Your task to perform on an android device: set default search engine in the chrome app Image 0: 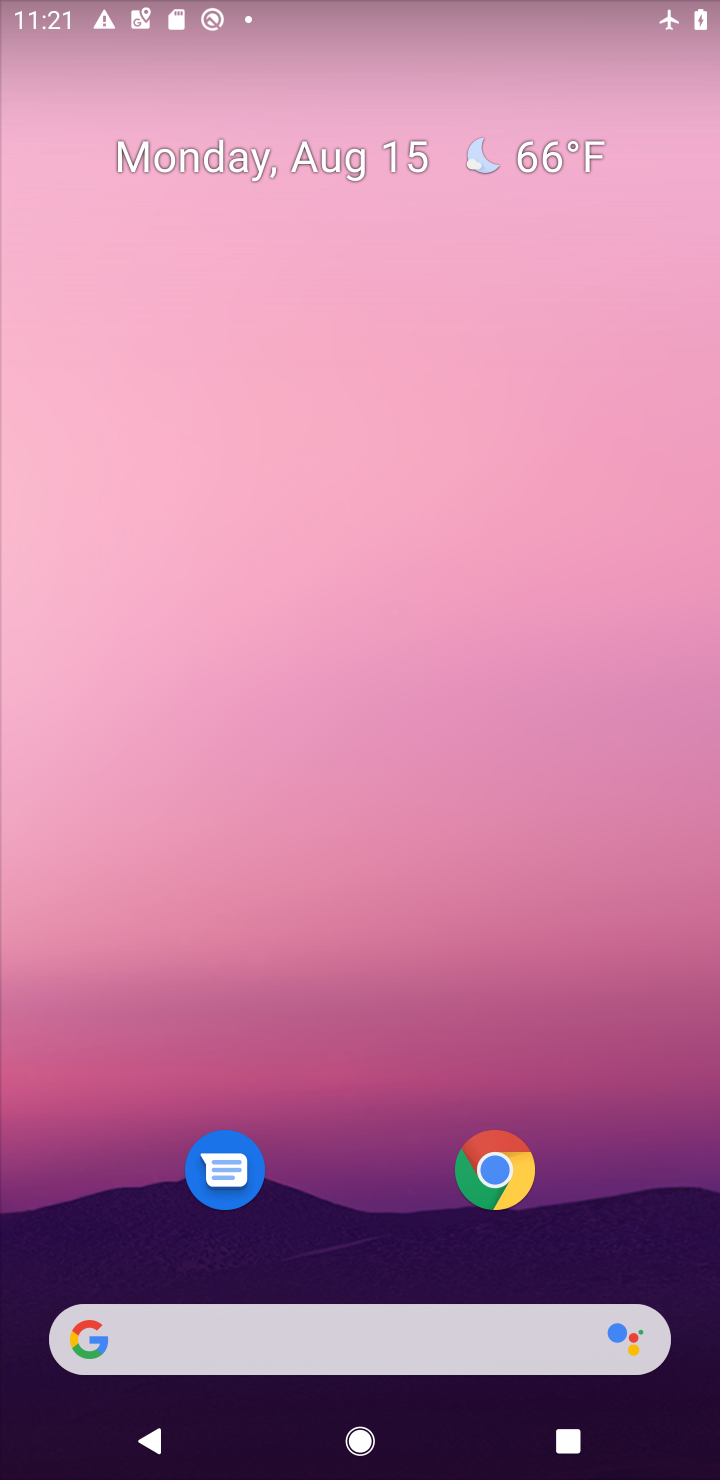
Step 0: click (489, 1160)
Your task to perform on an android device: set default search engine in the chrome app Image 1: 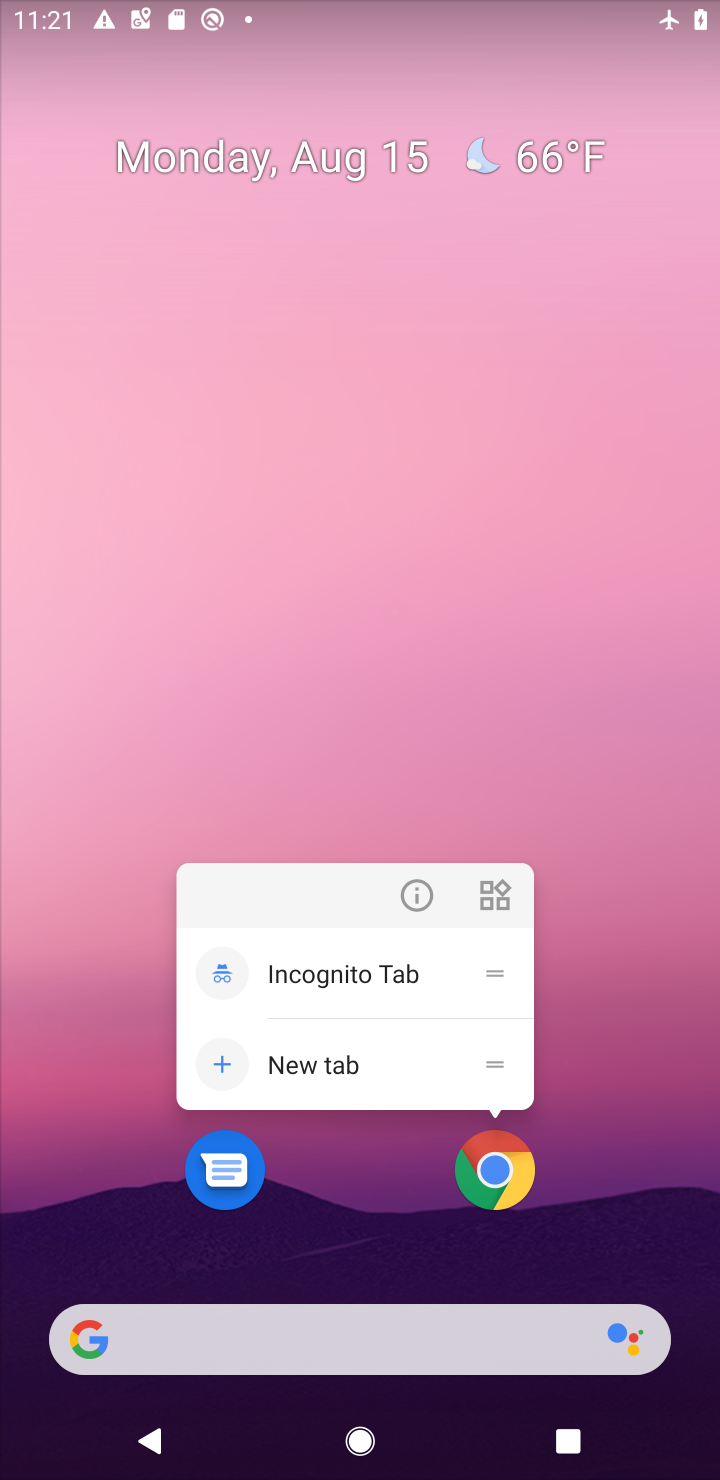
Step 1: click (489, 1160)
Your task to perform on an android device: set default search engine in the chrome app Image 2: 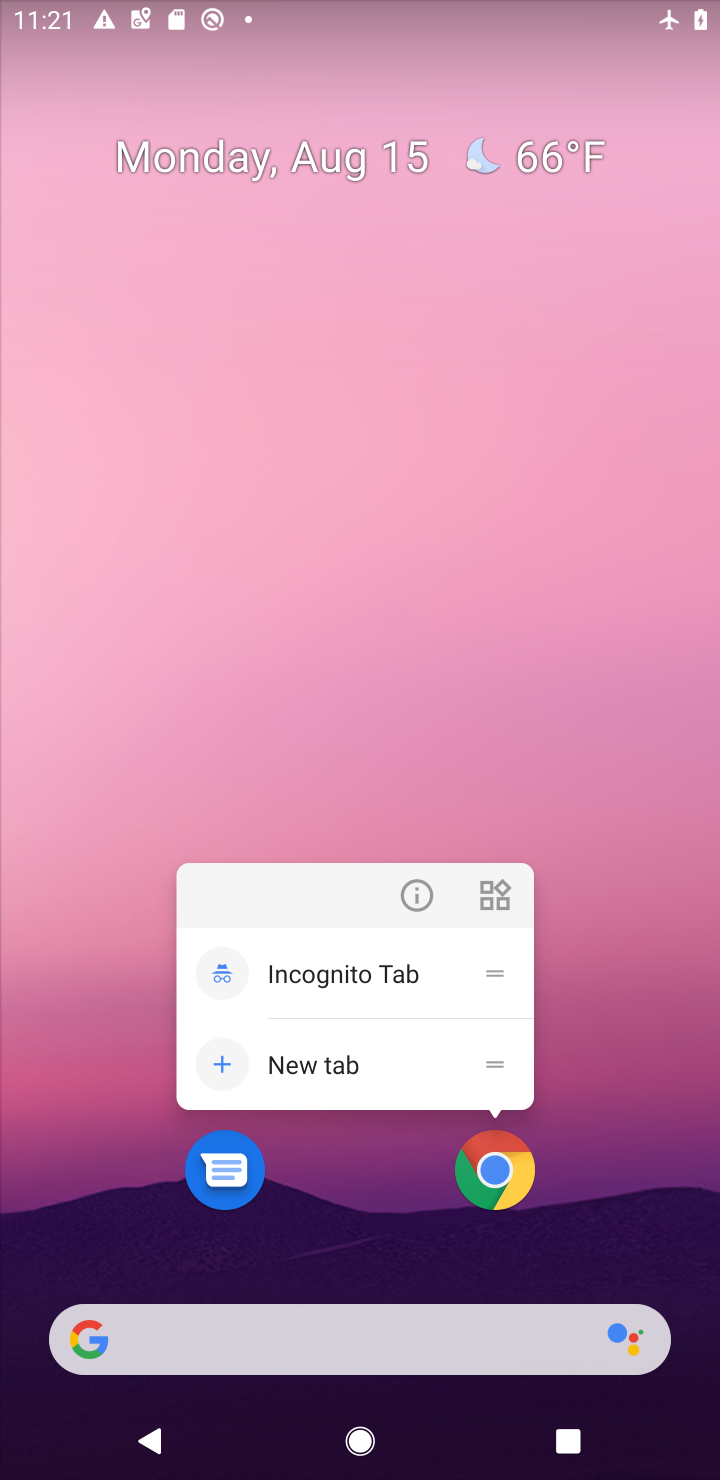
Step 2: click (570, 1249)
Your task to perform on an android device: set default search engine in the chrome app Image 3: 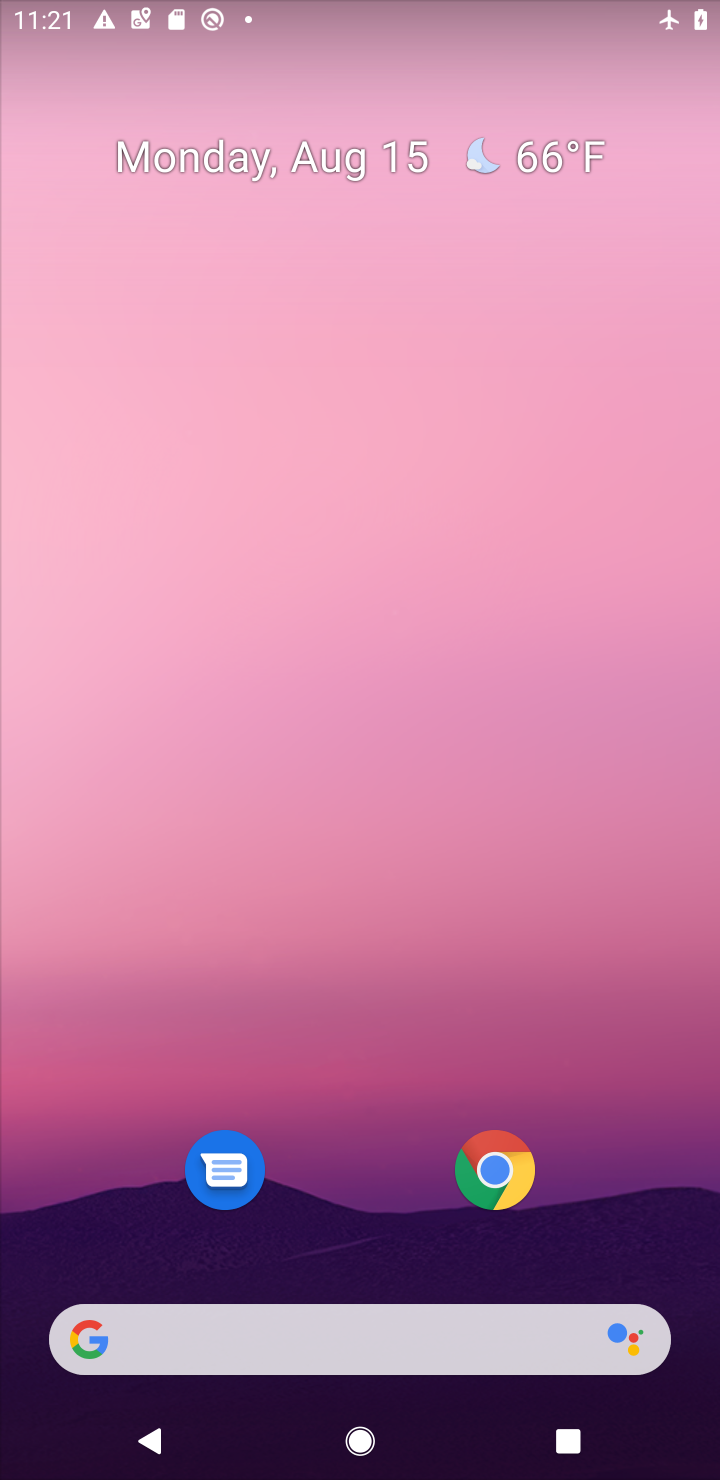
Step 3: drag from (550, 1284) to (551, 10)
Your task to perform on an android device: set default search engine in the chrome app Image 4: 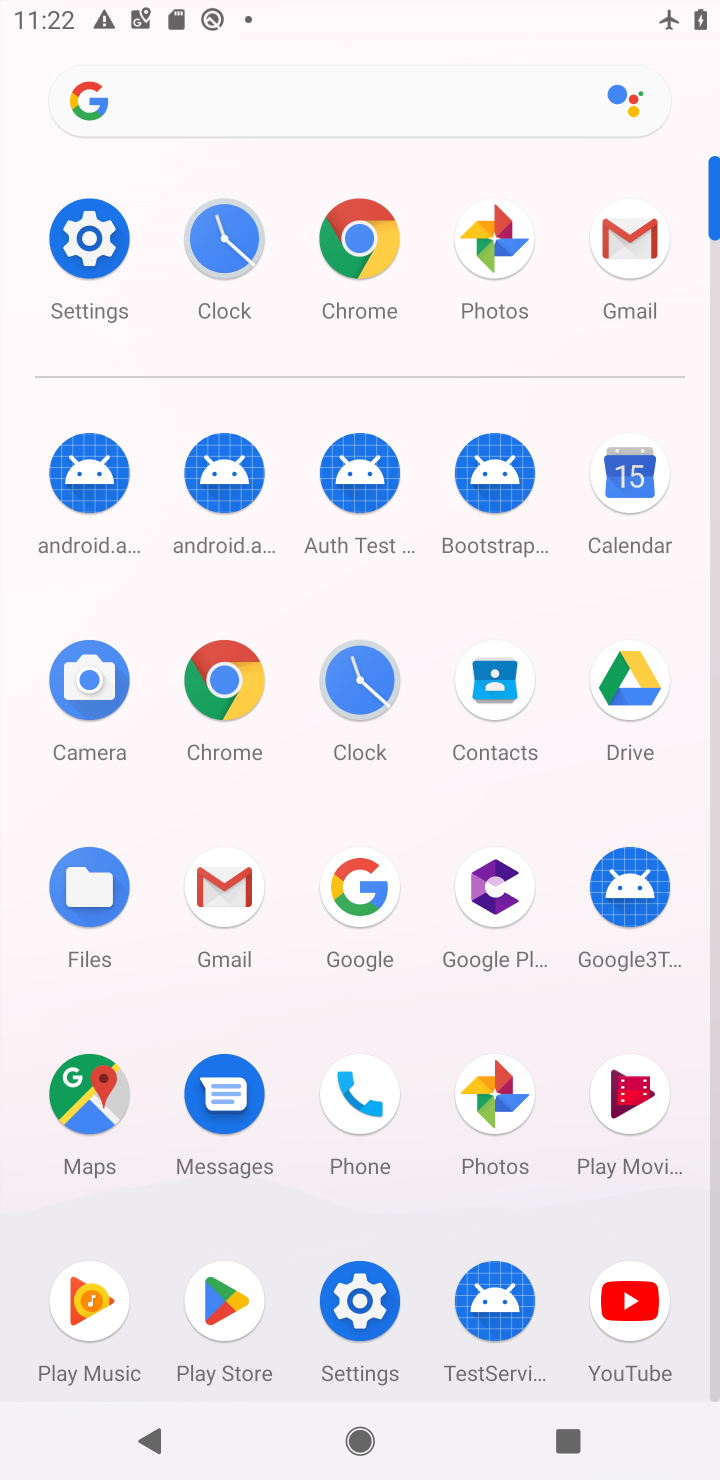
Step 4: click (351, 225)
Your task to perform on an android device: set default search engine in the chrome app Image 5: 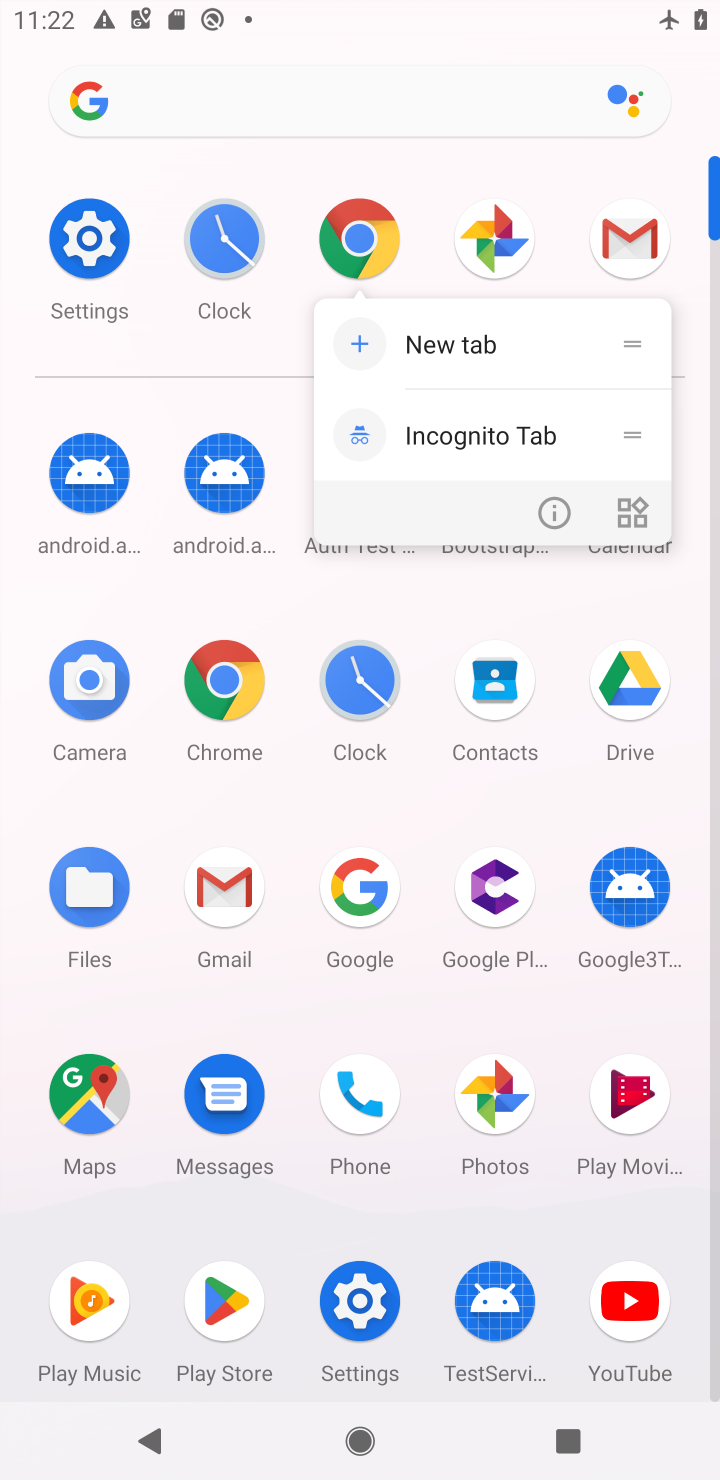
Step 5: click (355, 225)
Your task to perform on an android device: set default search engine in the chrome app Image 6: 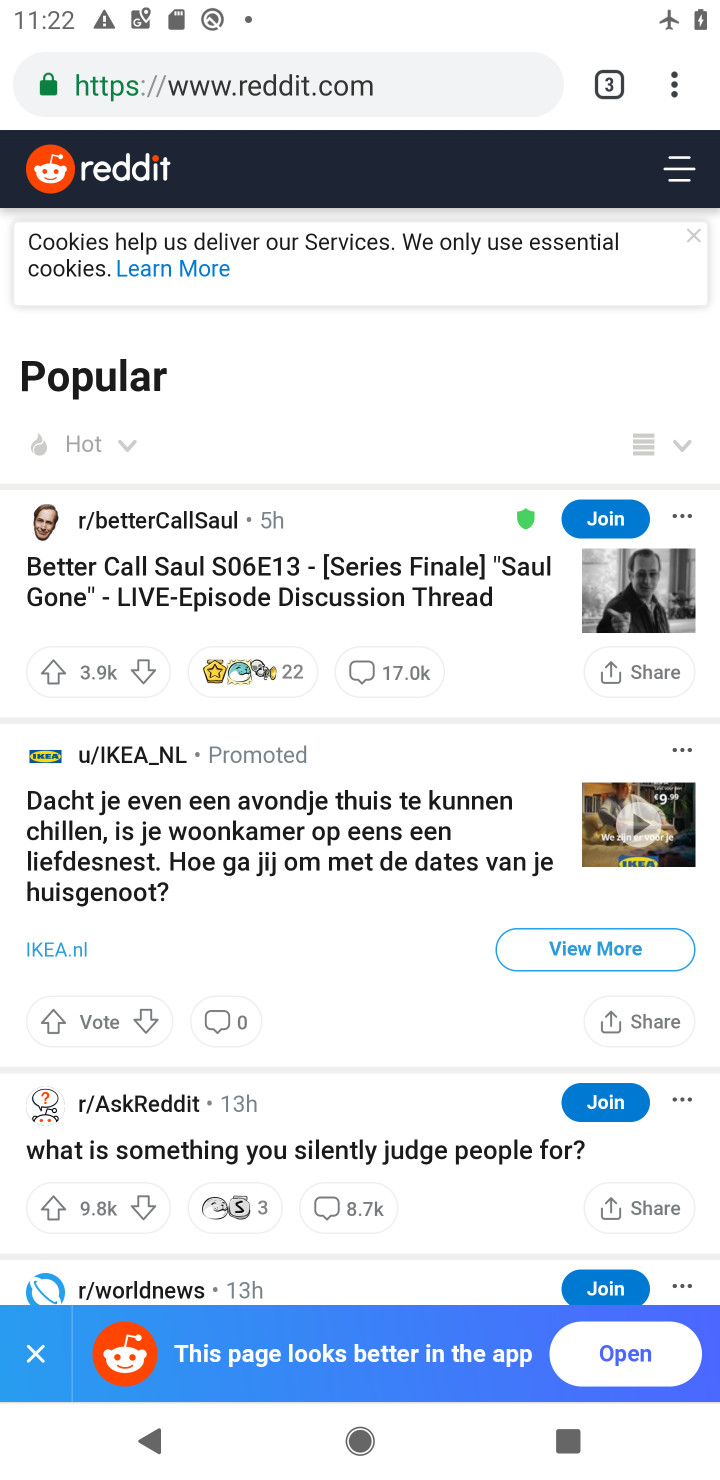
Step 6: click (676, 80)
Your task to perform on an android device: set default search engine in the chrome app Image 7: 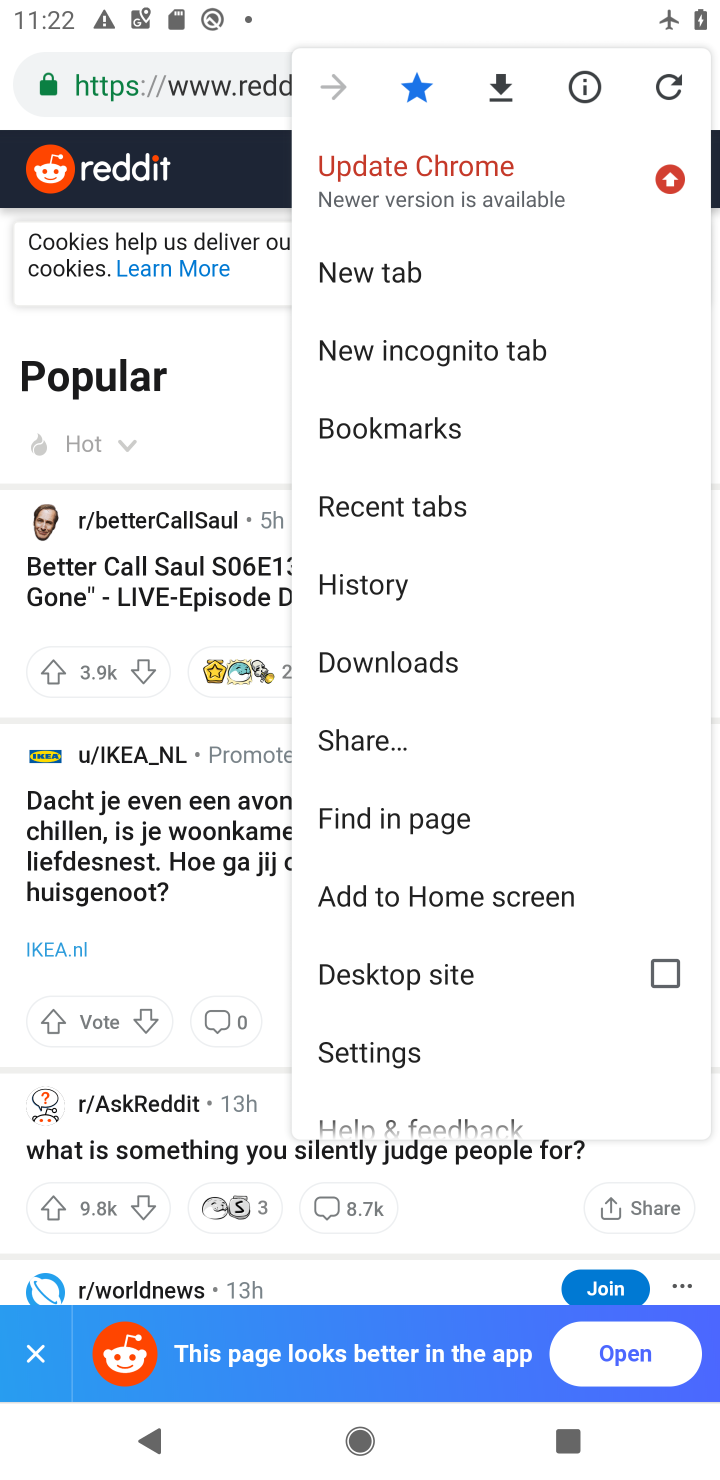
Step 7: click (424, 1049)
Your task to perform on an android device: set default search engine in the chrome app Image 8: 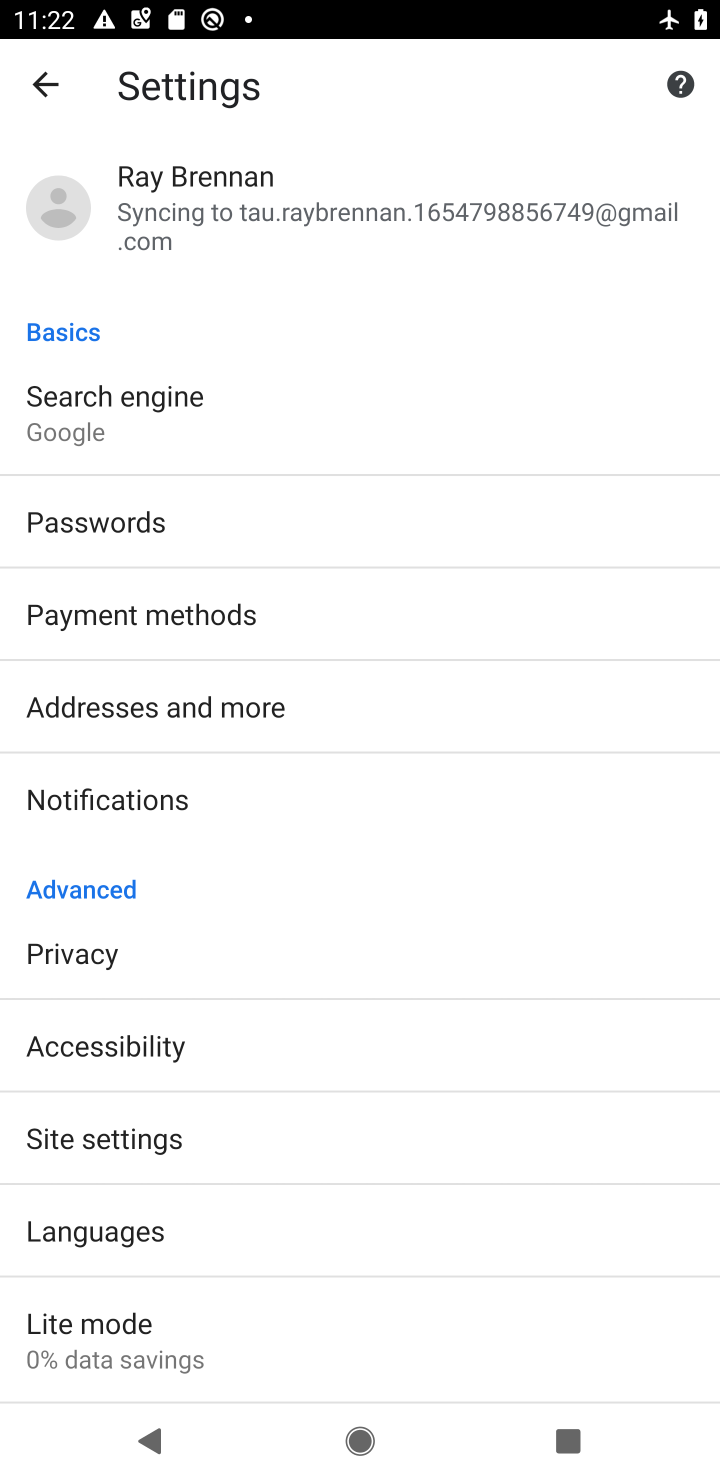
Step 8: click (130, 420)
Your task to perform on an android device: set default search engine in the chrome app Image 9: 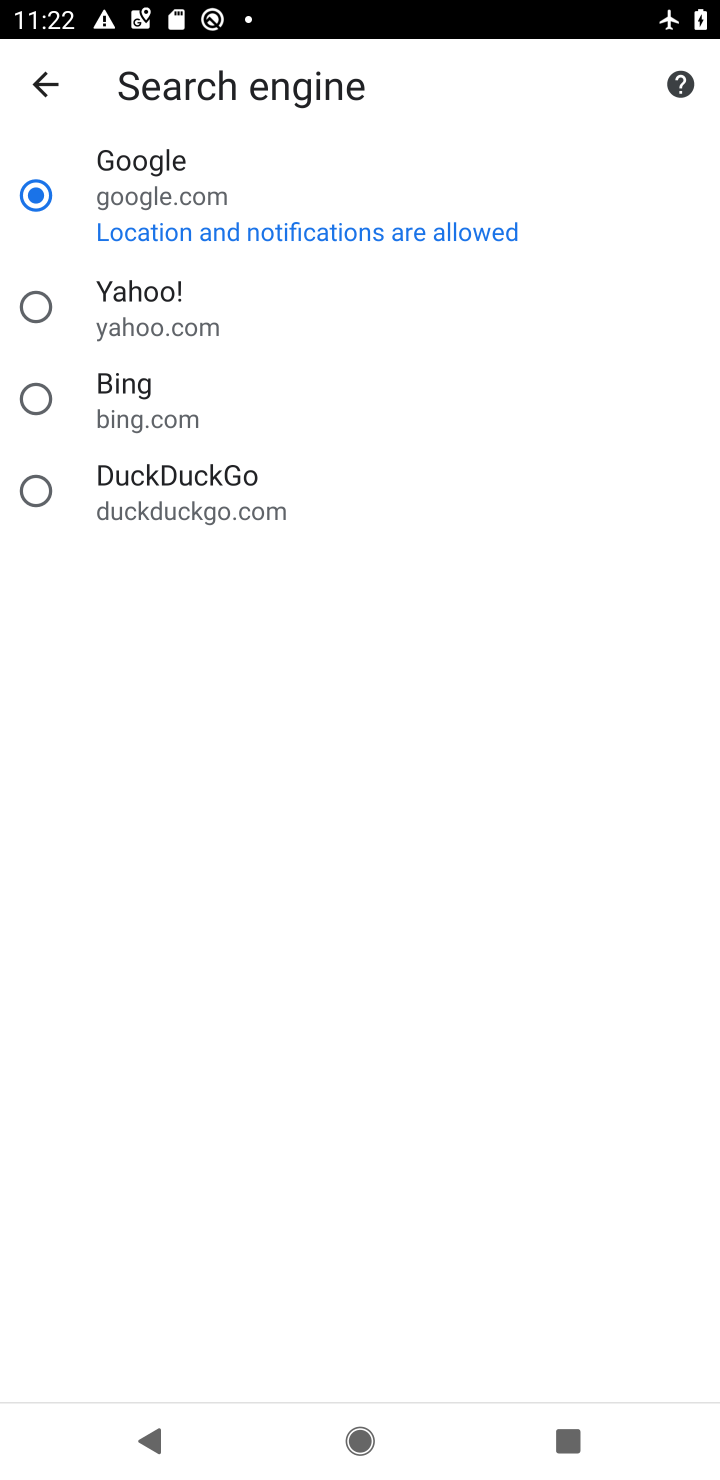
Step 9: click (30, 401)
Your task to perform on an android device: set default search engine in the chrome app Image 10: 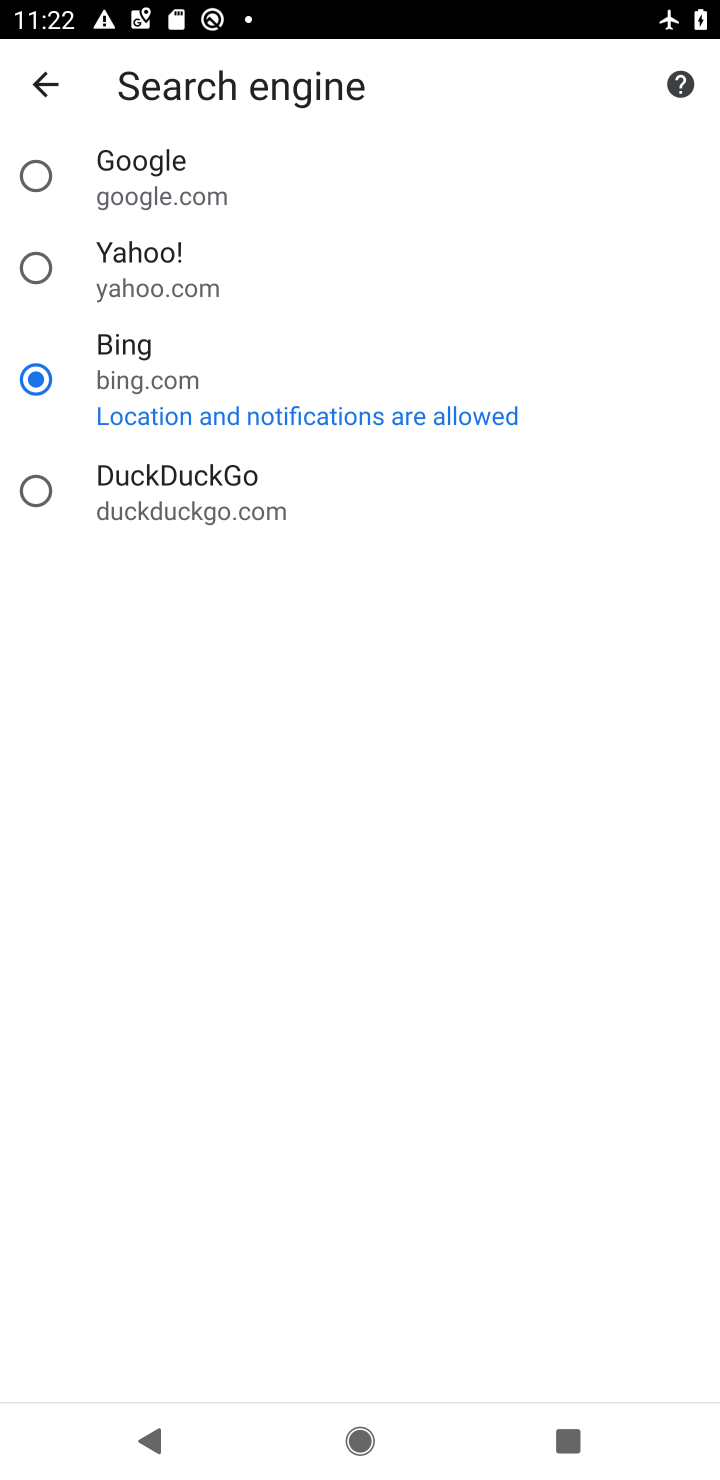
Step 10: task complete